Your task to perform on an android device: Open location settings Image 0: 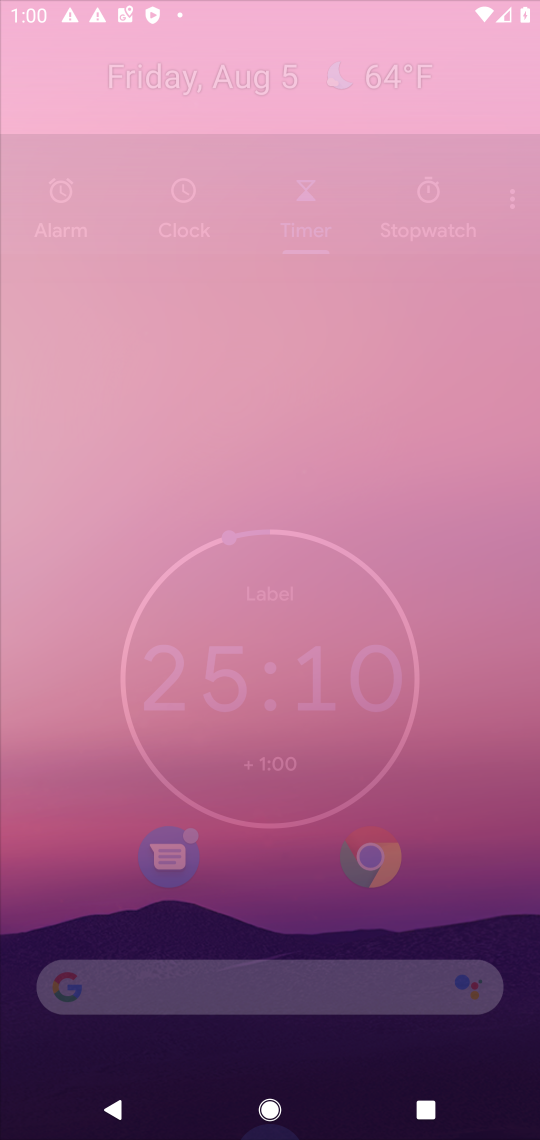
Step 0: press home button
Your task to perform on an android device: Open location settings Image 1: 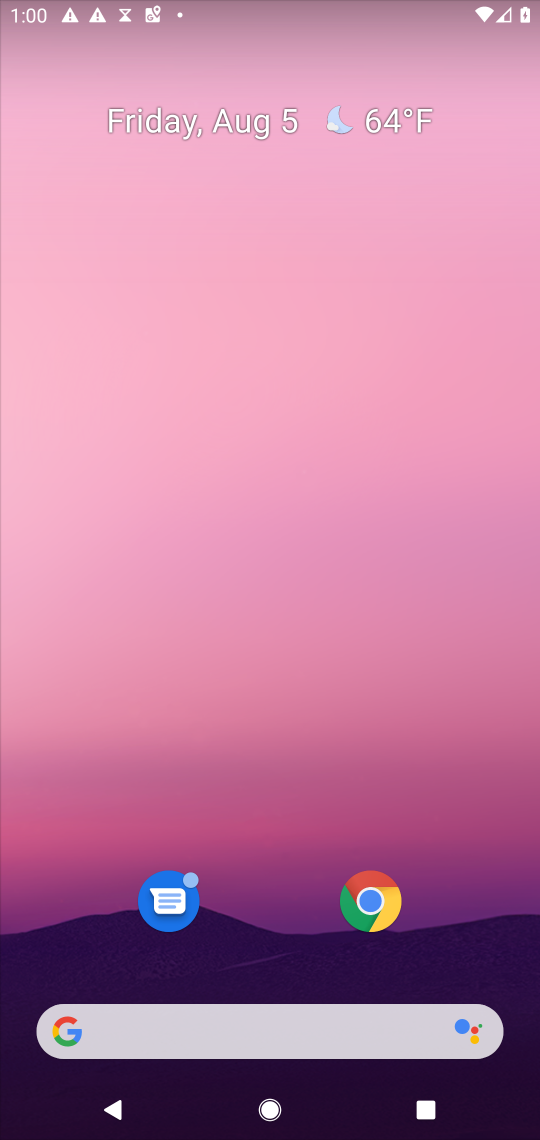
Step 1: drag from (272, 891) to (317, 71)
Your task to perform on an android device: Open location settings Image 2: 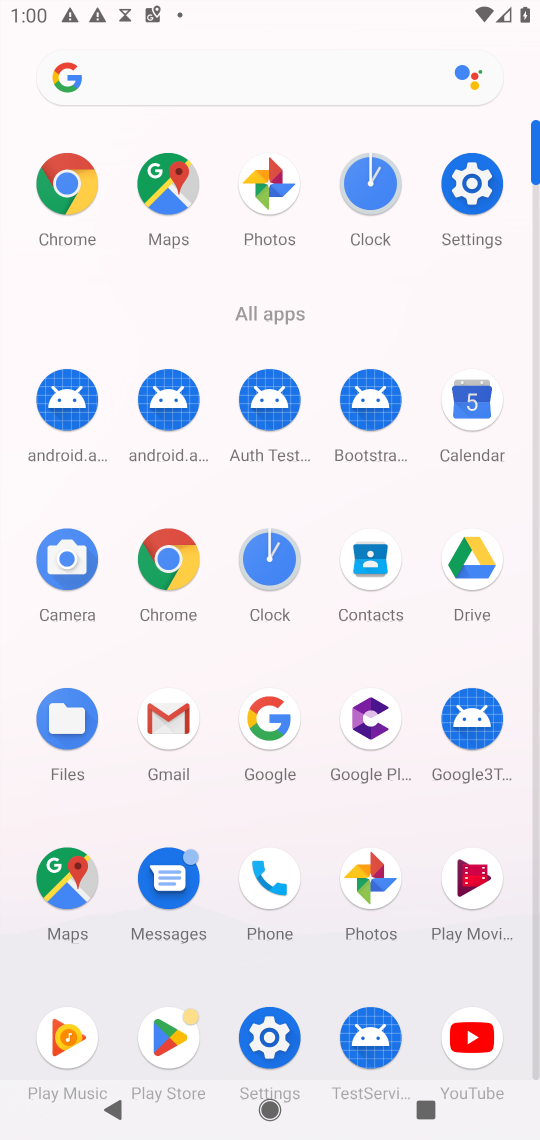
Step 2: click (472, 185)
Your task to perform on an android device: Open location settings Image 3: 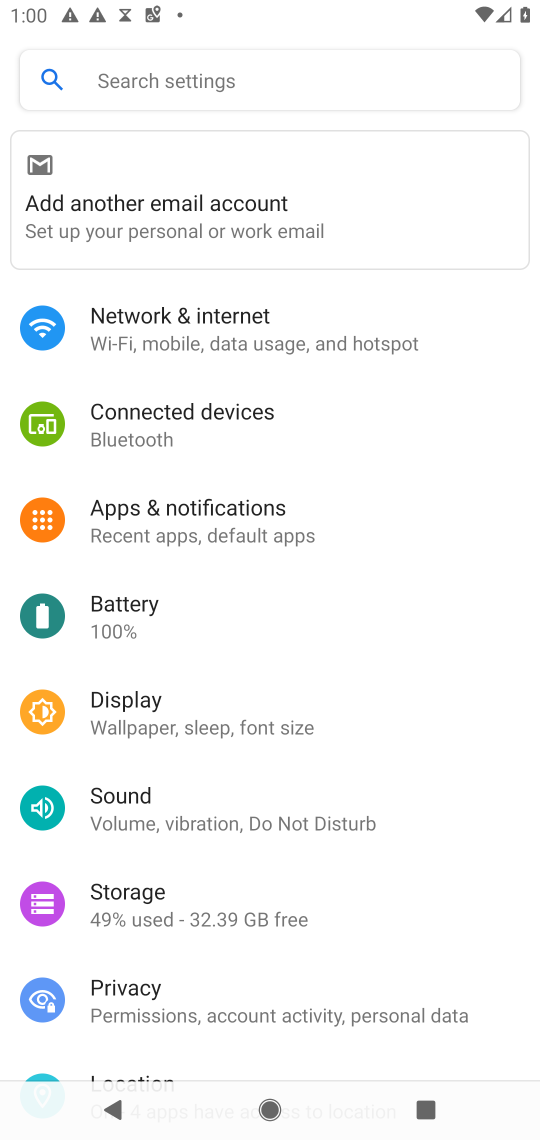
Step 3: drag from (182, 965) to (182, 498)
Your task to perform on an android device: Open location settings Image 4: 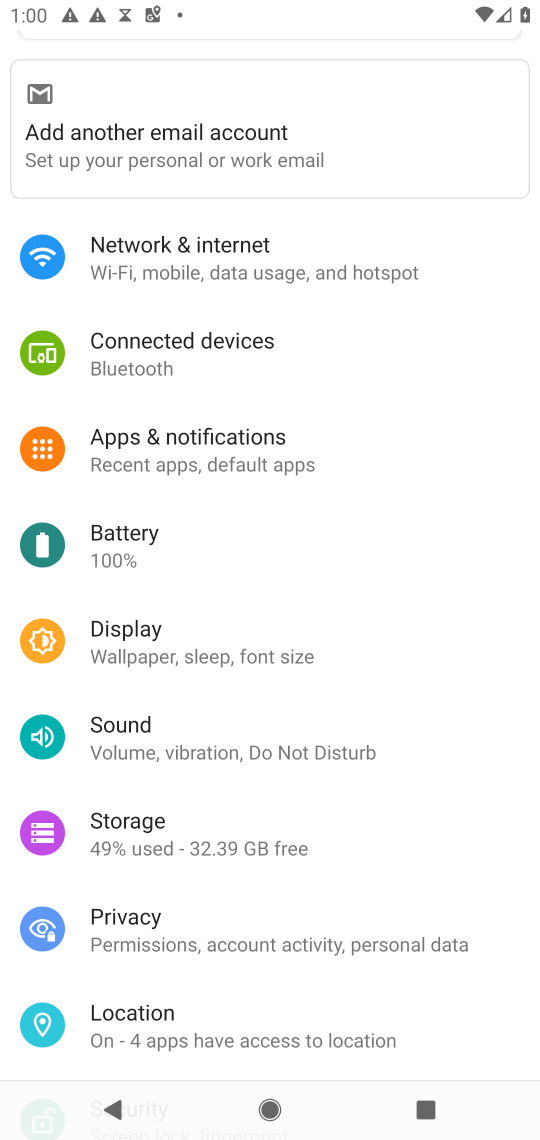
Step 4: click (133, 1030)
Your task to perform on an android device: Open location settings Image 5: 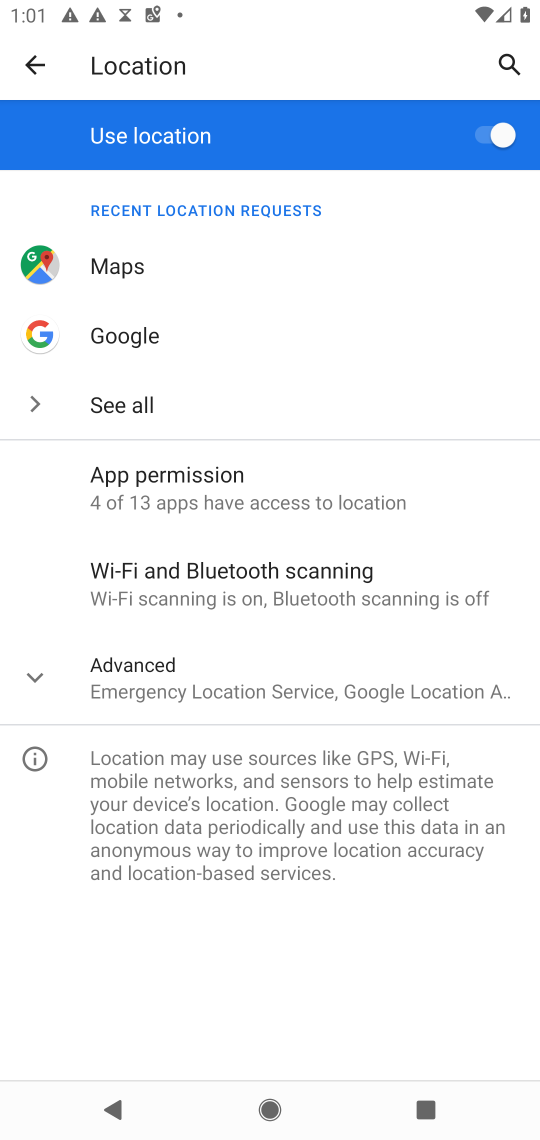
Step 5: task complete